Your task to perform on an android device: Toggle the flashlight Image 0: 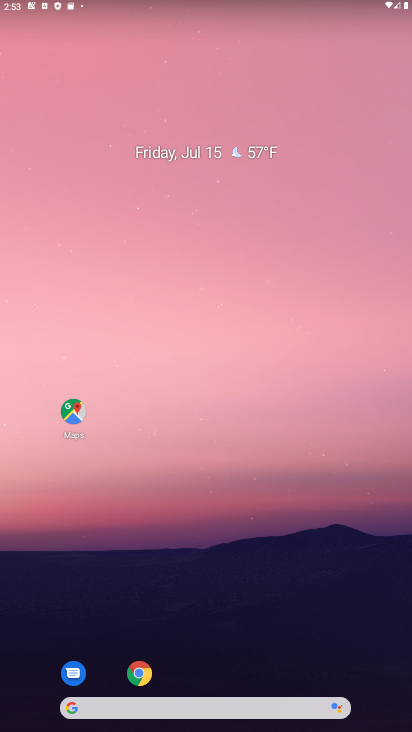
Step 0: click (135, 673)
Your task to perform on an android device: Toggle the flashlight Image 1: 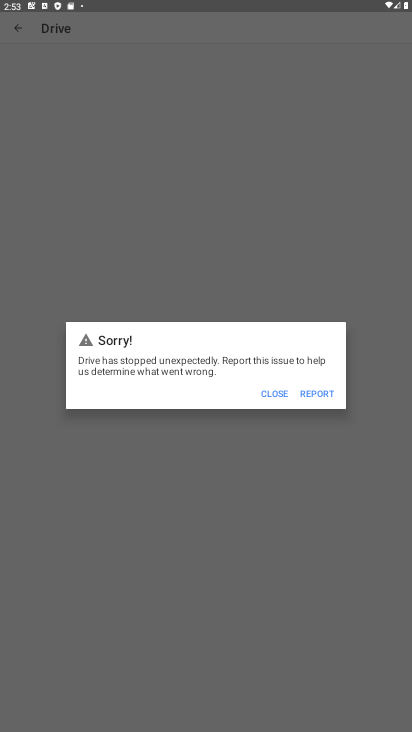
Step 1: press home button
Your task to perform on an android device: Toggle the flashlight Image 2: 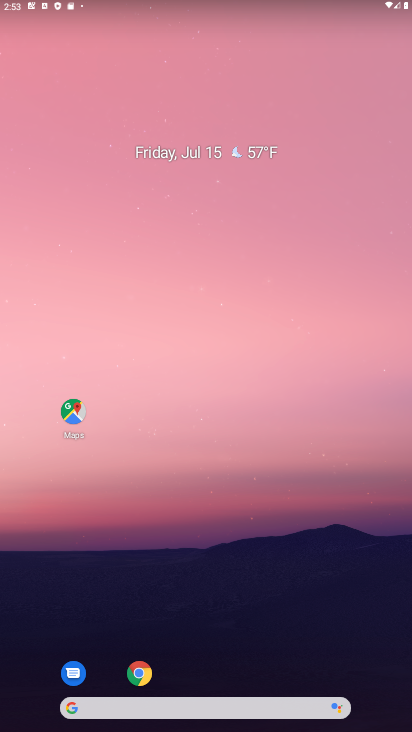
Step 2: drag from (216, 14) to (262, 618)
Your task to perform on an android device: Toggle the flashlight Image 3: 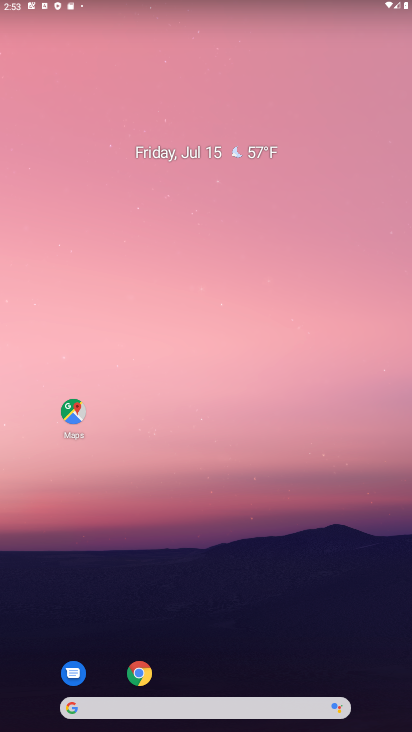
Step 3: drag from (220, 24) to (241, 406)
Your task to perform on an android device: Toggle the flashlight Image 4: 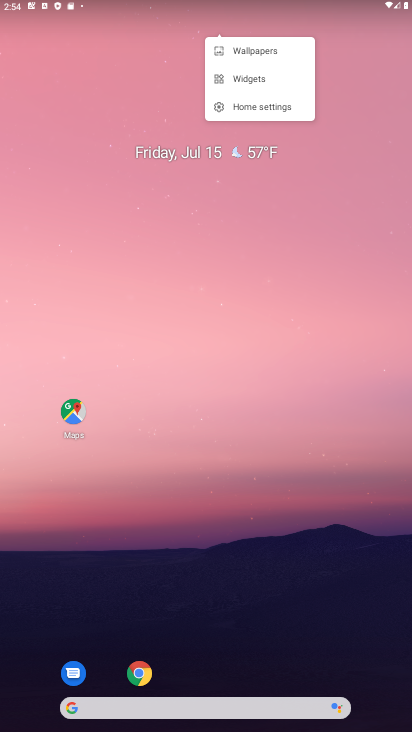
Step 4: drag from (197, 5) to (218, 467)
Your task to perform on an android device: Toggle the flashlight Image 5: 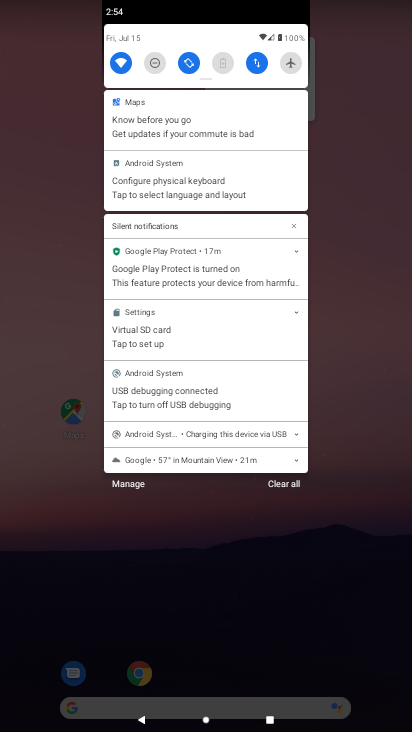
Step 5: drag from (202, 78) to (193, 305)
Your task to perform on an android device: Toggle the flashlight Image 6: 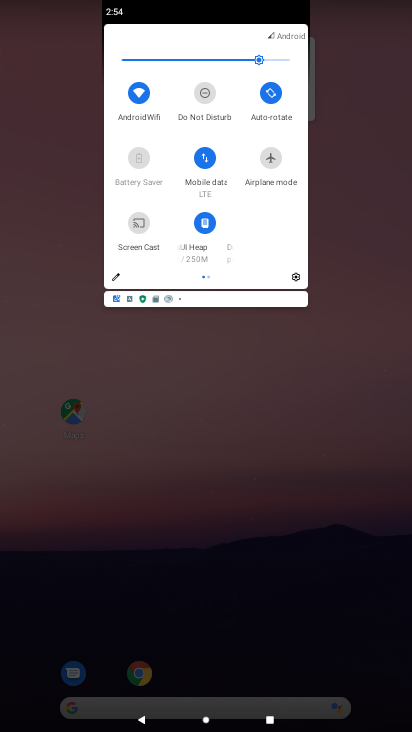
Step 6: click (112, 275)
Your task to perform on an android device: Toggle the flashlight Image 7: 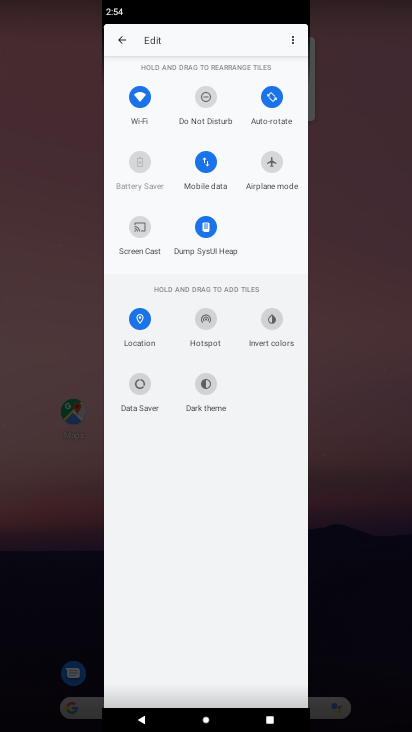
Step 7: task complete